Your task to perform on an android device: star an email in the gmail app Image 0: 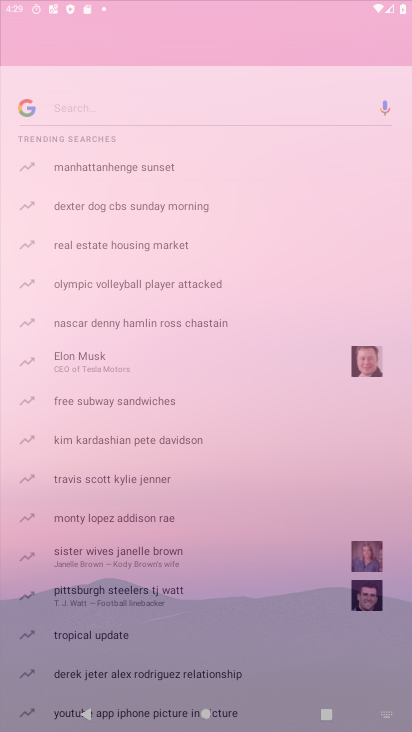
Step 0: drag from (202, 140) to (198, 7)
Your task to perform on an android device: star an email in the gmail app Image 1: 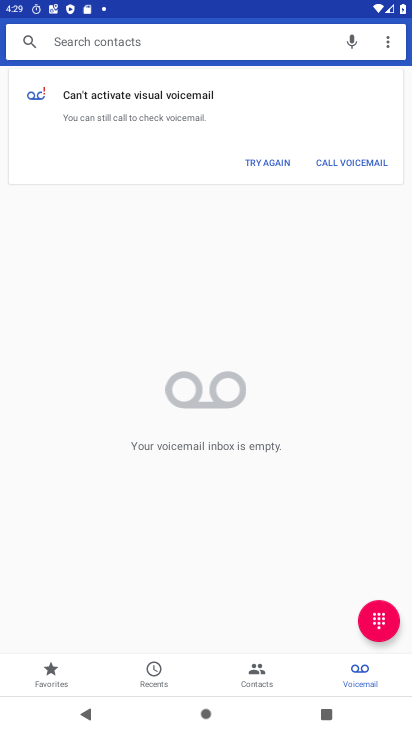
Step 1: press home button
Your task to perform on an android device: star an email in the gmail app Image 2: 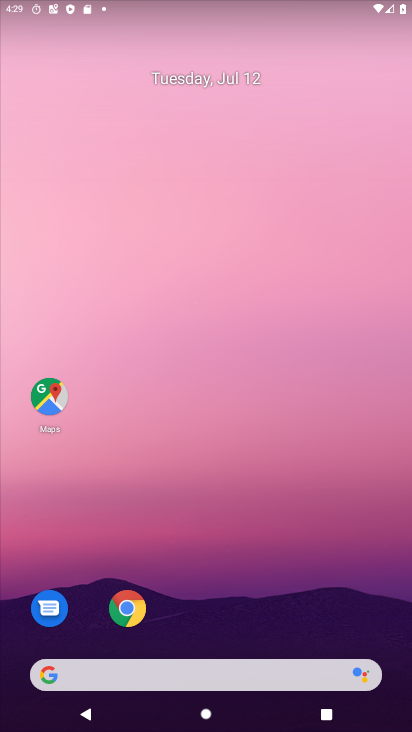
Step 2: drag from (225, 633) to (199, 254)
Your task to perform on an android device: star an email in the gmail app Image 3: 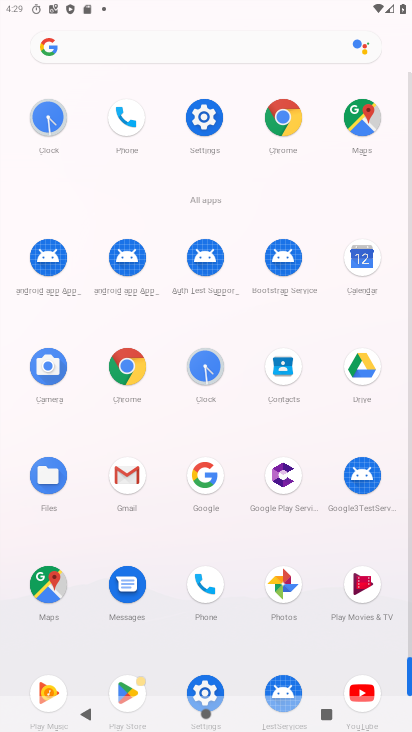
Step 3: click (121, 478)
Your task to perform on an android device: star an email in the gmail app Image 4: 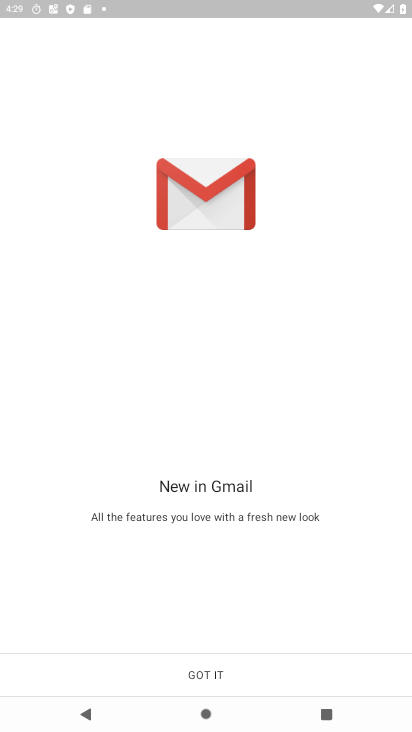
Step 4: click (203, 677)
Your task to perform on an android device: star an email in the gmail app Image 5: 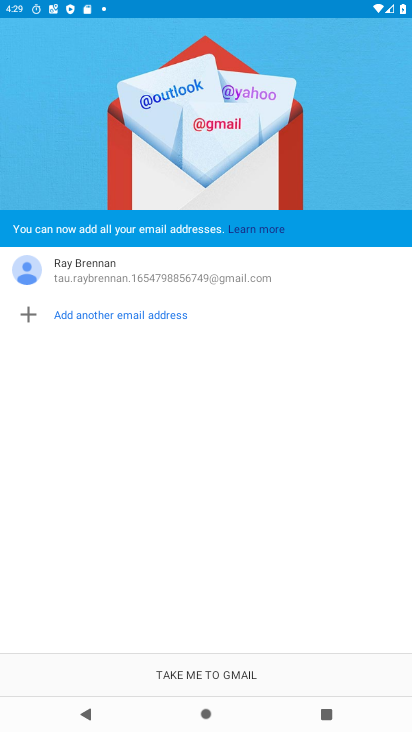
Step 5: click (203, 677)
Your task to perform on an android device: star an email in the gmail app Image 6: 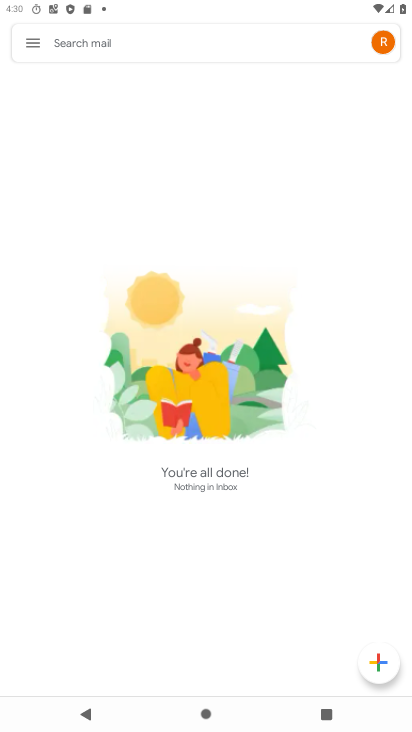
Step 6: task complete